Your task to perform on an android device: Open calendar and show me the third week of next month Image 0: 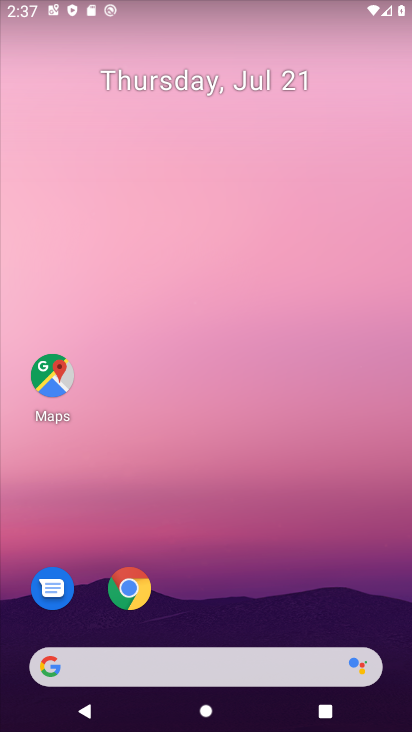
Step 0: drag from (162, 675) to (265, 50)
Your task to perform on an android device: Open calendar and show me the third week of next month Image 1: 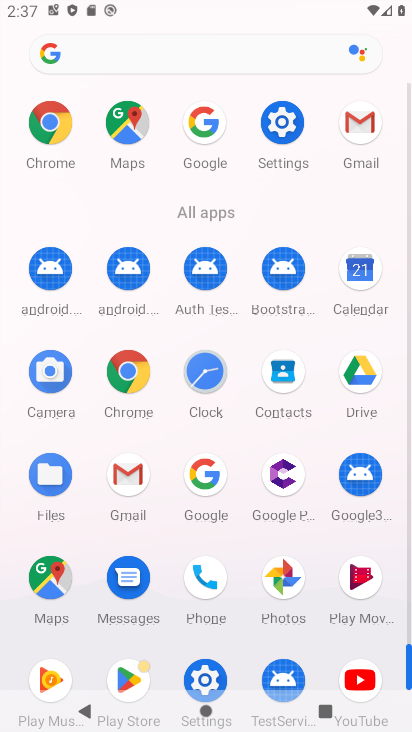
Step 1: click (347, 296)
Your task to perform on an android device: Open calendar and show me the third week of next month Image 2: 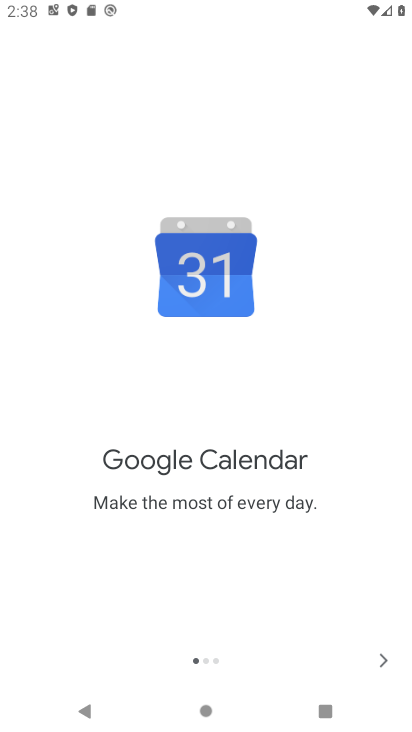
Step 2: click (386, 675)
Your task to perform on an android device: Open calendar and show me the third week of next month Image 3: 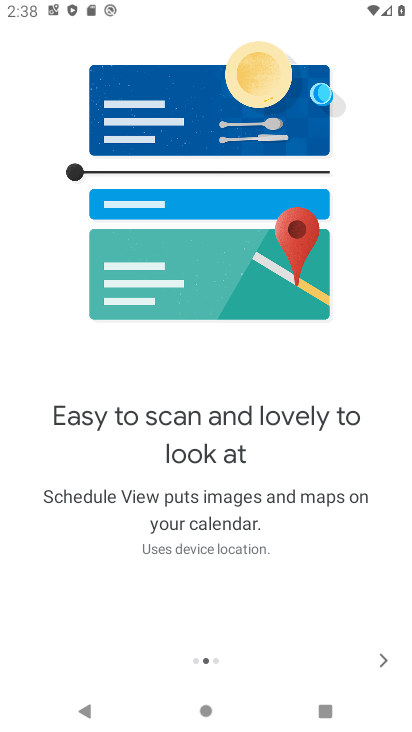
Step 3: click (386, 675)
Your task to perform on an android device: Open calendar and show me the third week of next month Image 4: 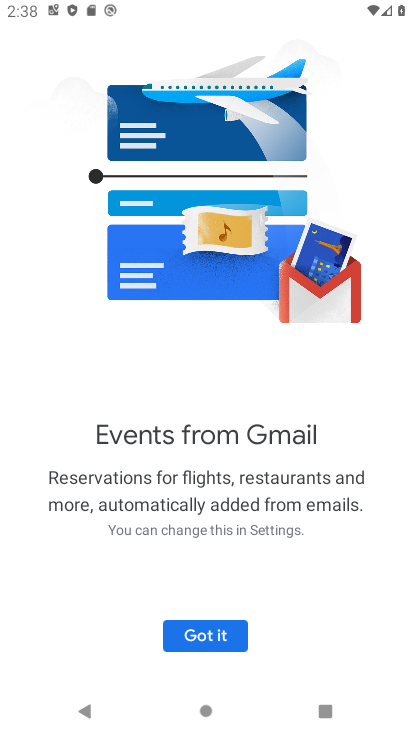
Step 4: click (214, 639)
Your task to perform on an android device: Open calendar and show me the third week of next month Image 5: 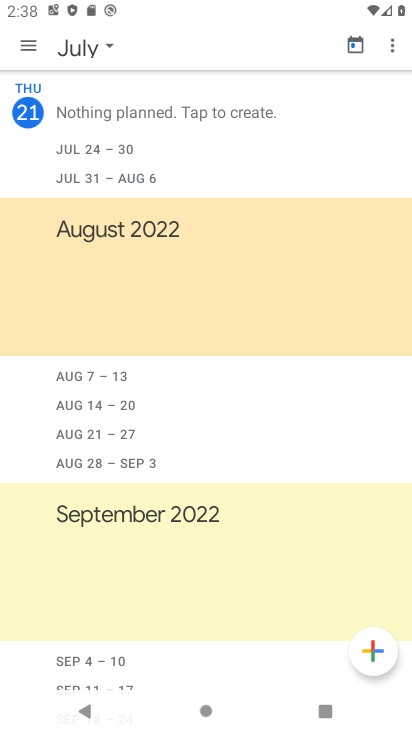
Step 5: click (100, 50)
Your task to perform on an android device: Open calendar and show me the third week of next month Image 6: 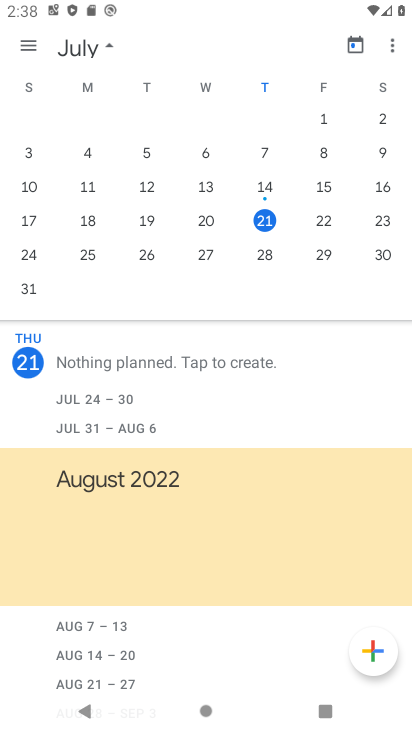
Step 6: drag from (344, 214) to (2, 239)
Your task to perform on an android device: Open calendar and show me the third week of next month Image 7: 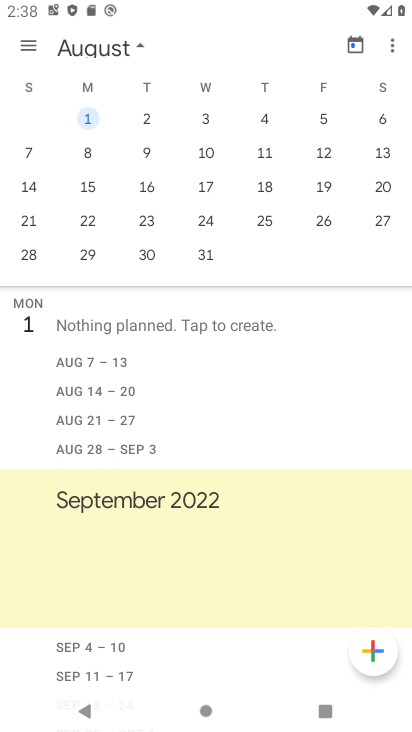
Step 7: click (82, 188)
Your task to perform on an android device: Open calendar and show me the third week of next month Image 8: 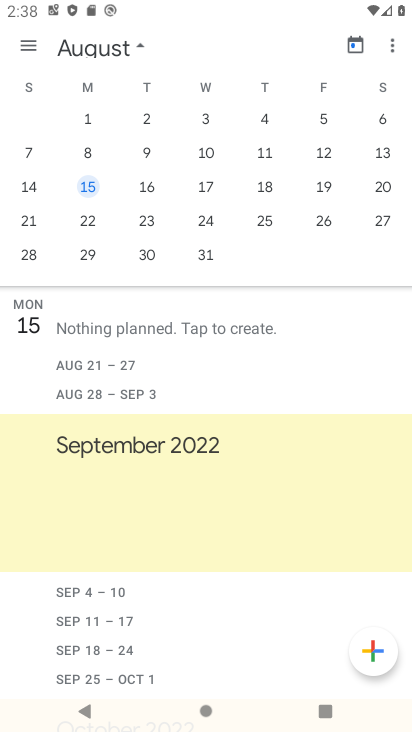
Step 8: task complete